Your task to perform on an android device: Open accessibility settings Image 0: 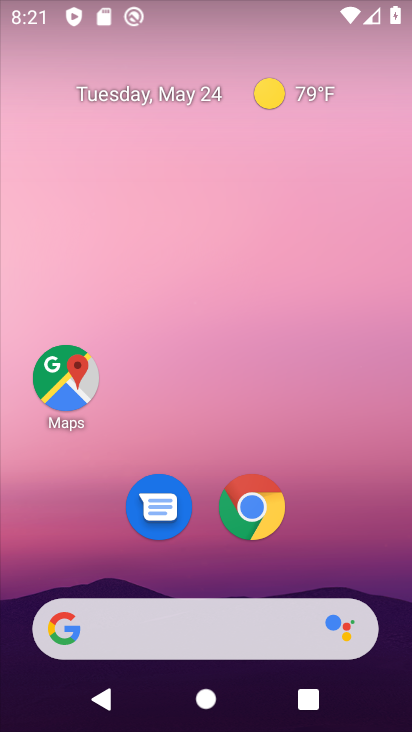
Step 0: drag from (276, 694) to (265, 162)
Your task to perform on an android device: Open accessibility settings Image 1: 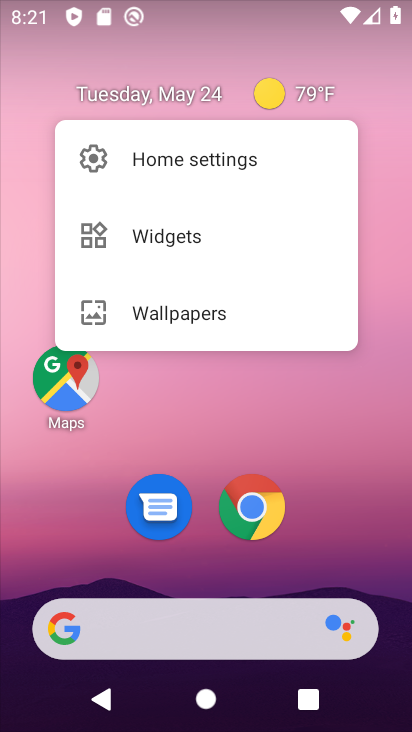
Step 1: press back button
Your task to perform on an android device: Open accessibility settings Image 2: 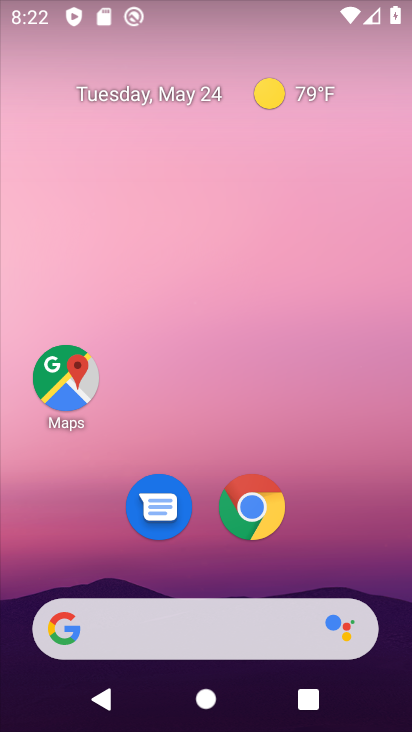
Step 2: drag from (258, 535) to (255, 176)
Your task to perform on an android device: Open accessibility settings Image 3: 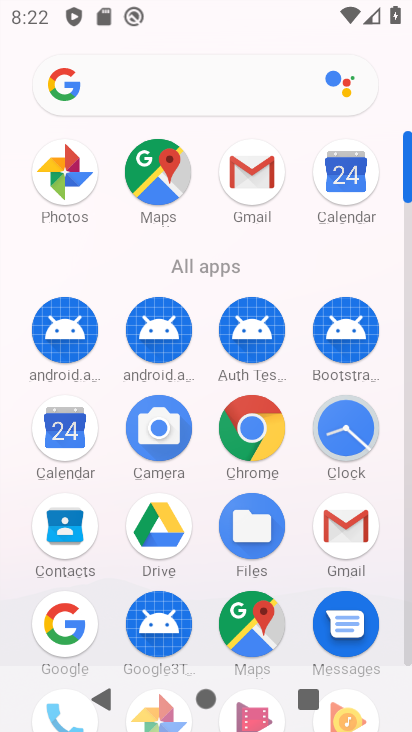
Step 3: drag from (222, 621) to (213, 296)
Your task to perform on an android device: Open accessibility settings Image 4: 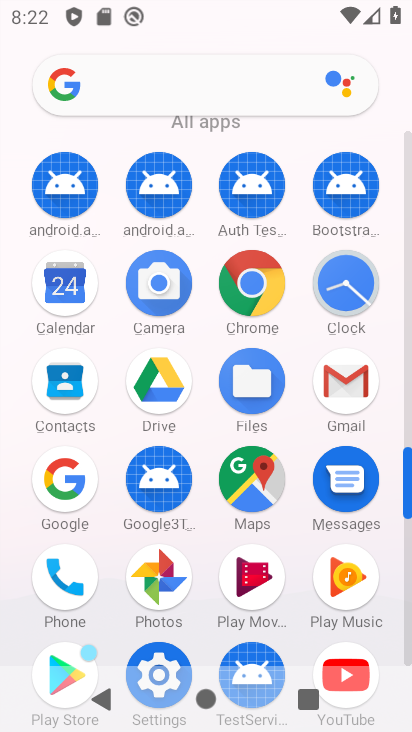
Step 4: drag from (247, 563) to (230, 296)
Your task to perform on an android device: Open accessibility settings Image 5: 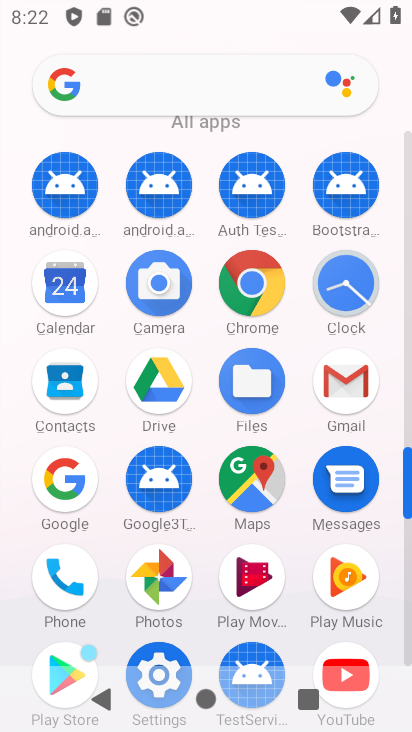
Step 5: drag from (204, 536) to (315, 219)
Your task to perform on an android device: Open accessibility settings Image 6: 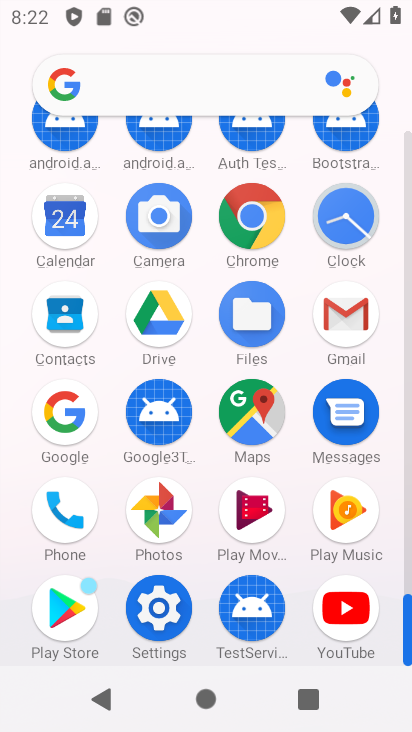
Step 6: click (160, 648)
Your task to perform on an android device: Open accessibility settings Image 7: 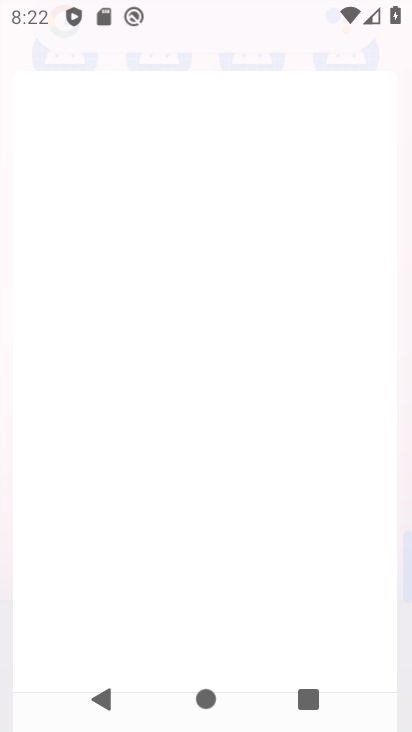
Step 7: click (150, 614)
Your task to perform on an android device: Open accessibility settings Image 8: 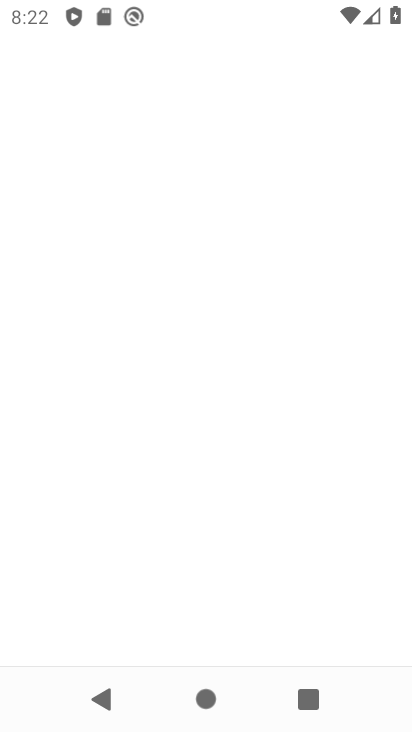
Step 8: click (156, 620)
Your task to perform on an android device: Open accessibility settings Image 9: 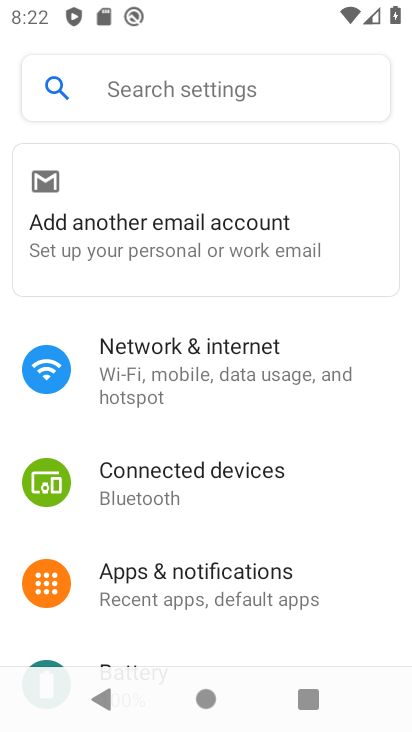
Step 9: drag from (187, 533) to (196, 236)
Your task to perform on an android device: Open accessibility settings Image 10: 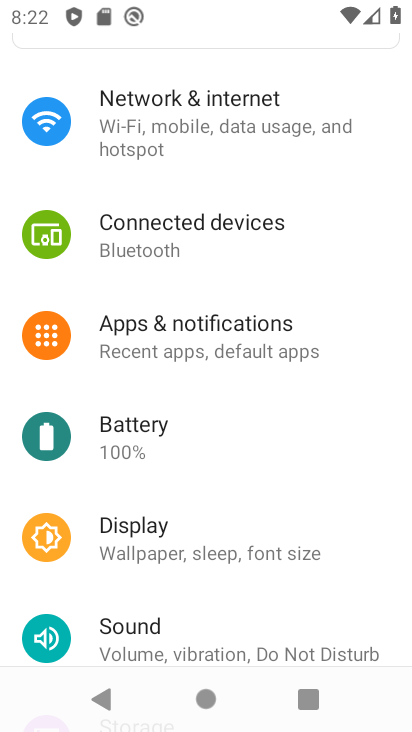
Step 10: drag from (256, 455) to (235, 181)
Your task to perform on an android device: Open accessibility settings Image 11: 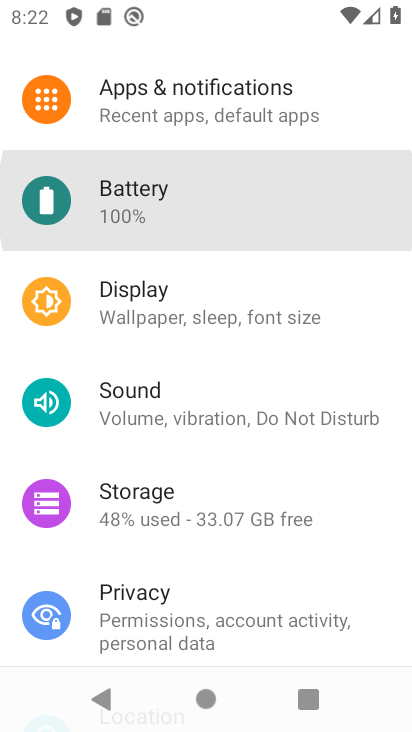
Step 11: drag from (220, 311) to (220, 240)
Your task to perform on an android device: Open accessibility settings Image 12: 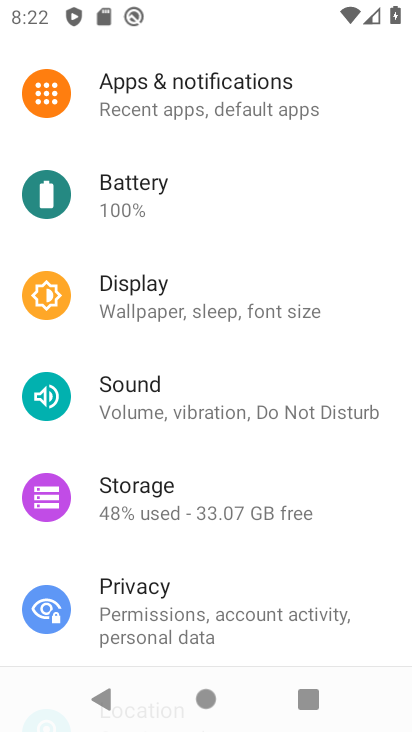
Step 12: drag from (197, 517) to (256, 143)
Your task to perform on an android device: Open accessibility settings Image 13: 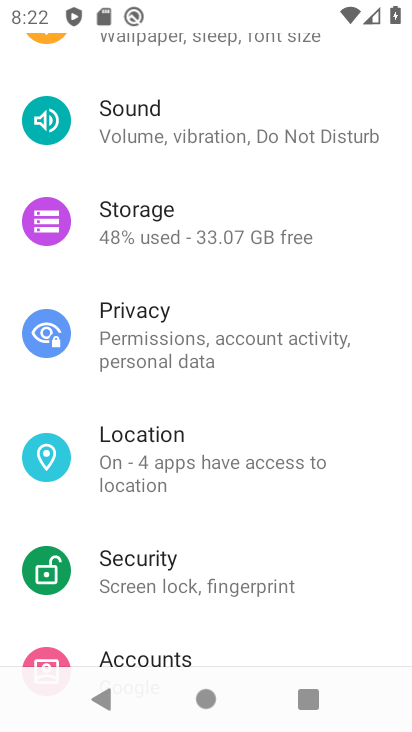
Step 13: drag from (245, 561) to (306, 157)
Your task to perform on an android device: Open accessibility settings Image 14: 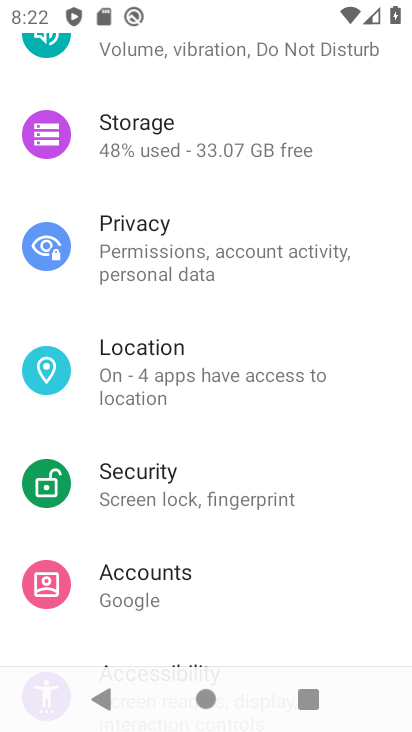
Step 14: drag from (260, 499) to (261, 117)
Your task to perform on an android device: Open accessibility settings Image 15: 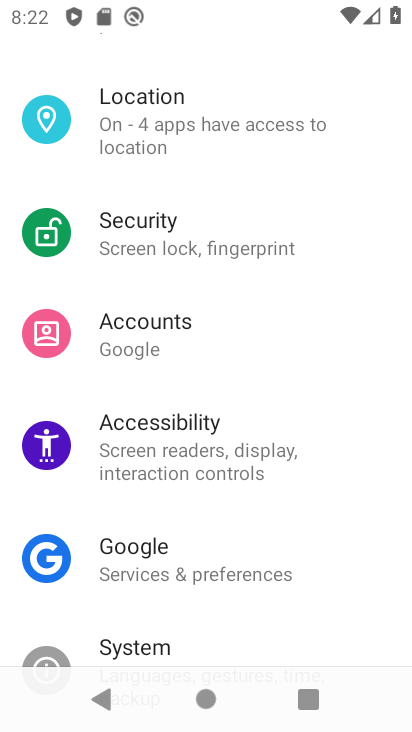
Step 15: drag from (151, 615) to (193, 127)
Your task to perform on an android device: Open accessibility settings Image 16: 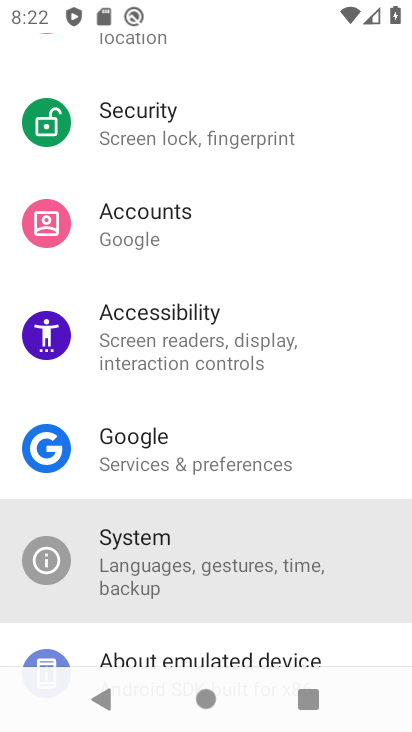
Step 16: drag from (252, 639) to (334, 5)
Your task to perform on an android device: Open accessibility settings Image 17: 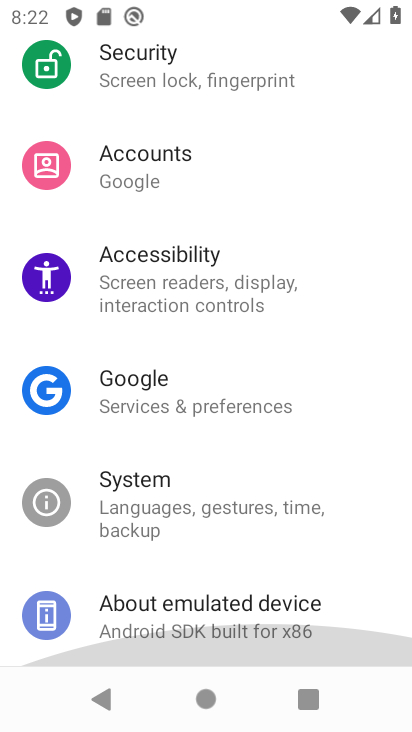
Step 17: drag from (257, 502) to (223, 180)
Your task to perform on an android device: Open accessibility settings Image 18: 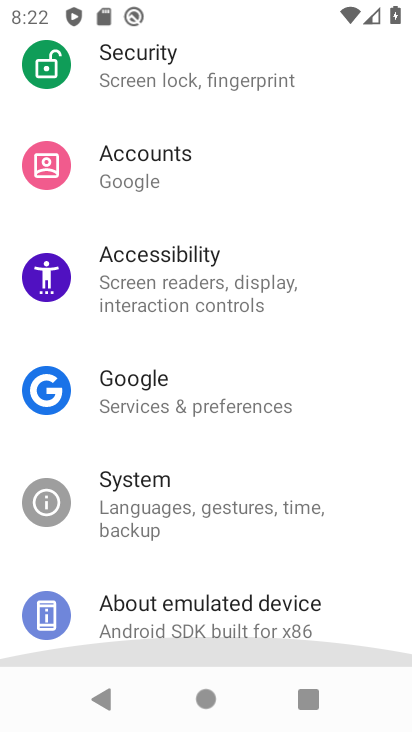
Step 18: drag from (217, 549) to (260, 162)
Your task to perform on an android device: Open accessibility settings Image 19: 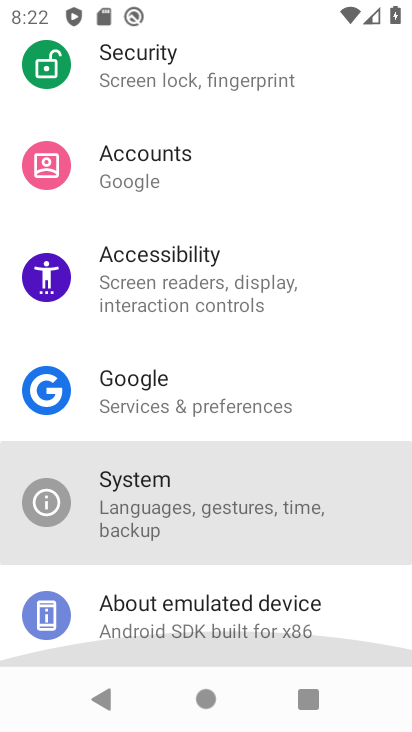
Step 19: drag from (241, 592) to (272, 94)
Your task to perform on an android device: Open accessibility settings Image 20: 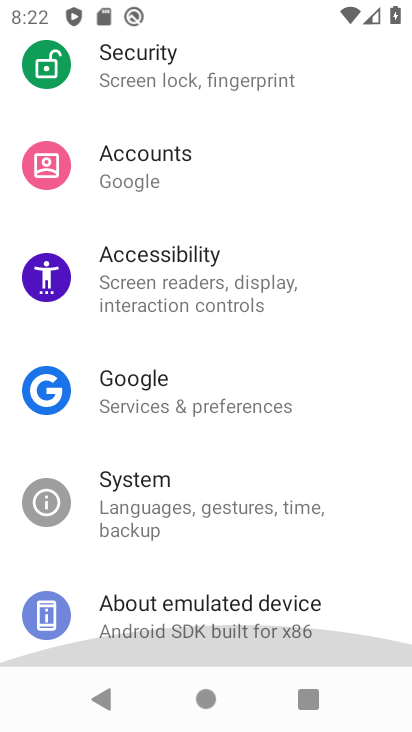
Step 20: drag from (181, 536) to (177, 195)
Your task to perform on an android device: Open accessibility settings Image 21: 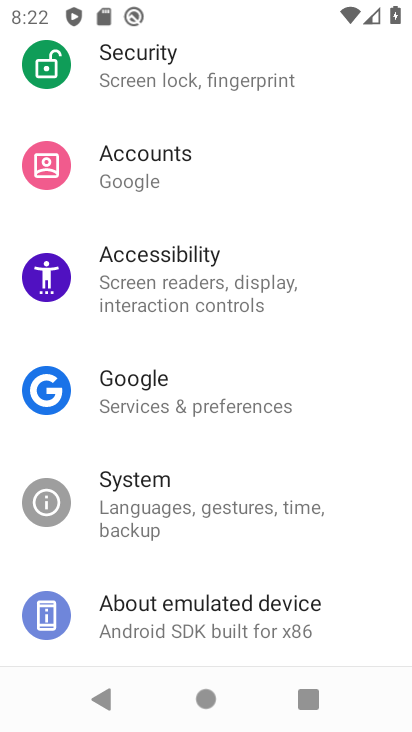
Step 21: click (159, 289)
Your task to perform on an android device: Open accessibility settings Image 22: 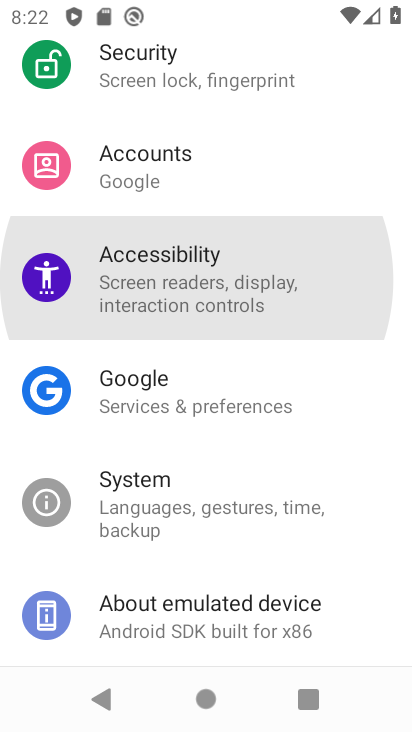
Step 22: click (159, 289)
Your task to perform on an android device: Open accessibility settings Image 23: 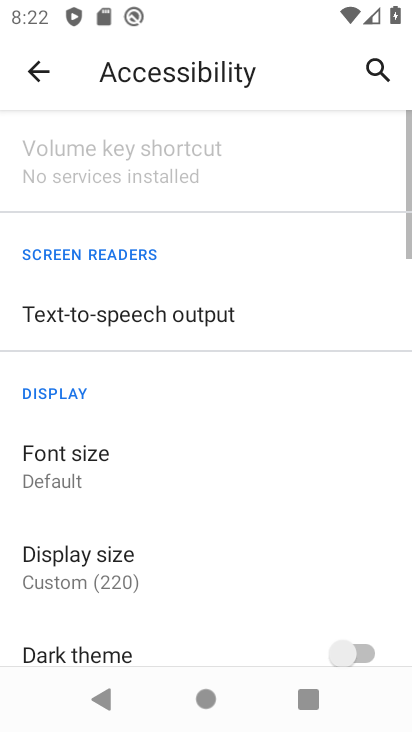
Step 23: click (162, 288)
Your task to perform on an android device: Open accessibility settings Image 24: 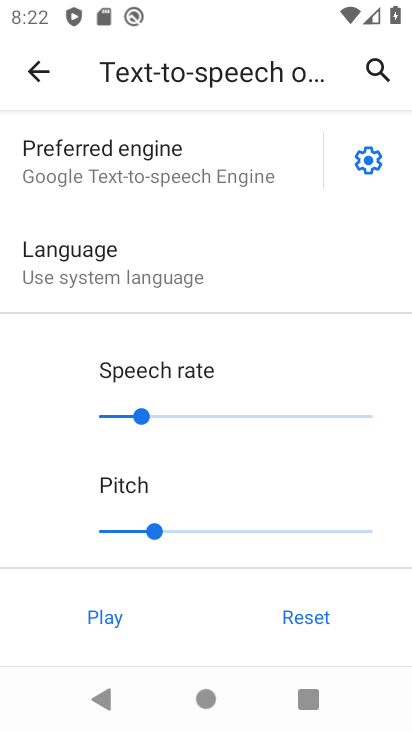
Step 24: task complete